Your task to perform on an android device: Open maps Image 0: 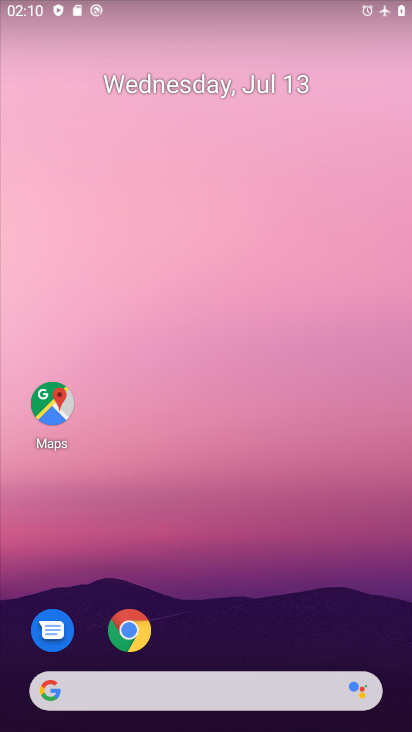
Step 0: click (45, 418)
Your task to perform on an android device: Open maps Image 1: 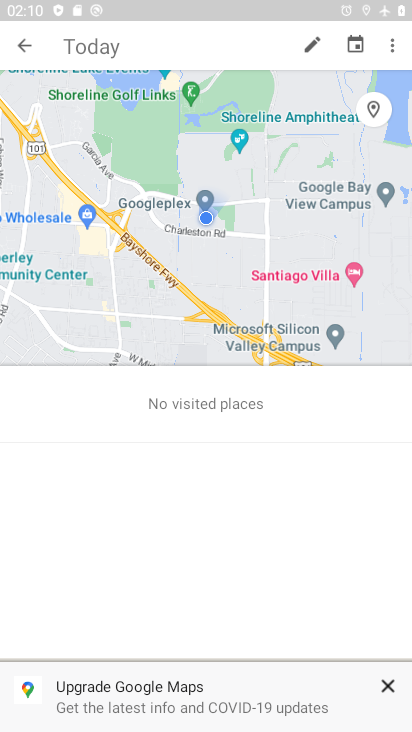
Step 1: task complete